Your task to perform on an android device: Open ESPN.com Image 0: 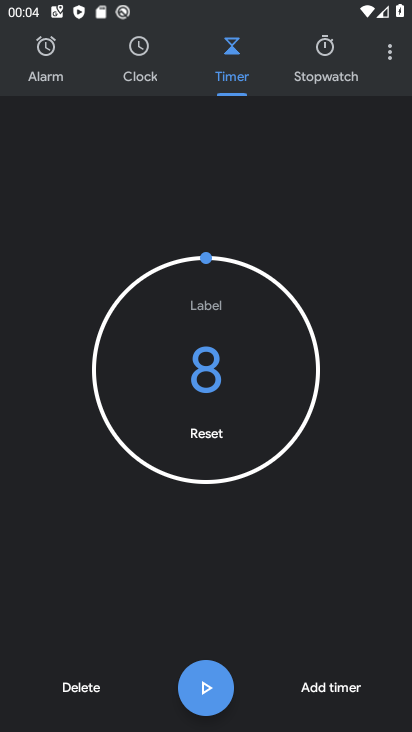
Step 0: press home button
Your task to perform on an android device: Open ESPN.com Image 1: 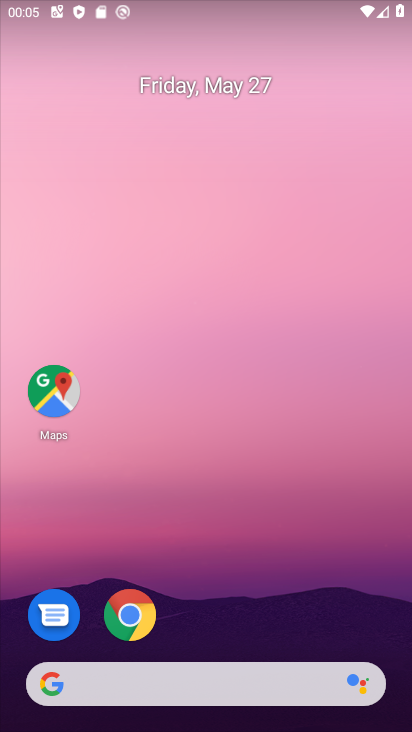
Step 1: click (149, 630)
Your task to perform on an android device: Open ESPN.com Image 2: 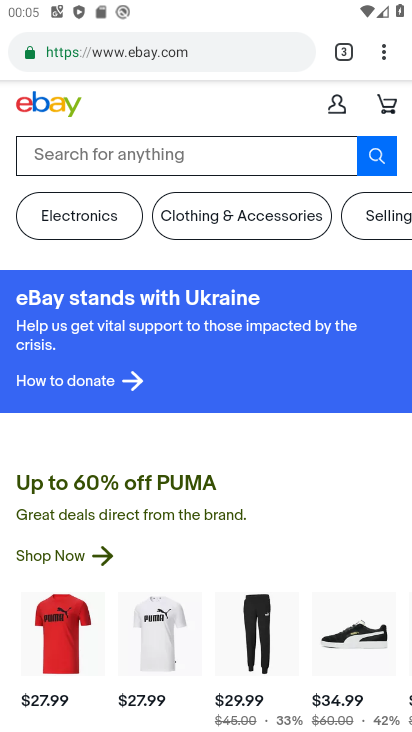
Step 2: click (148, 51)
Your task to perform on an android device: Open ESPN.com Image 3: 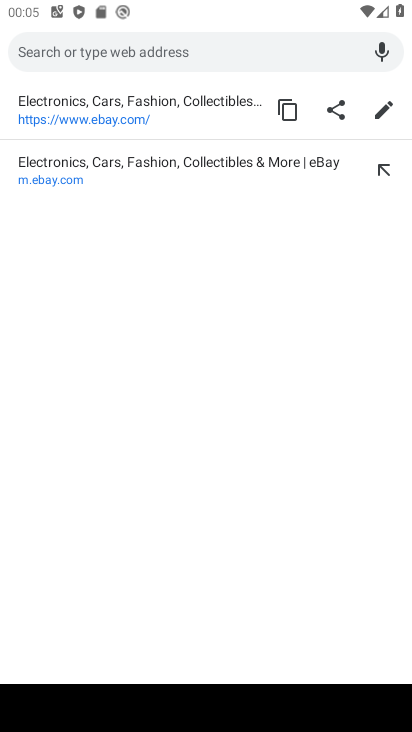
Step 3: type " ESPN.com"
Your task to perform on an android device: Open ESPN.com Image 4: 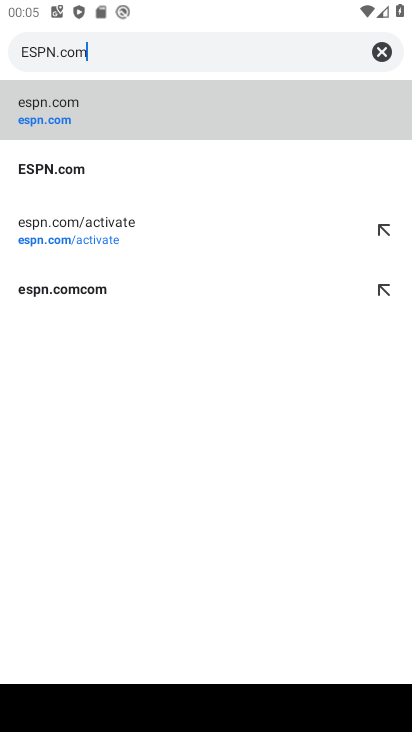
Step 4: click (107, 98)
Your task to perform on an android device: Open ESPN.com Image 5: 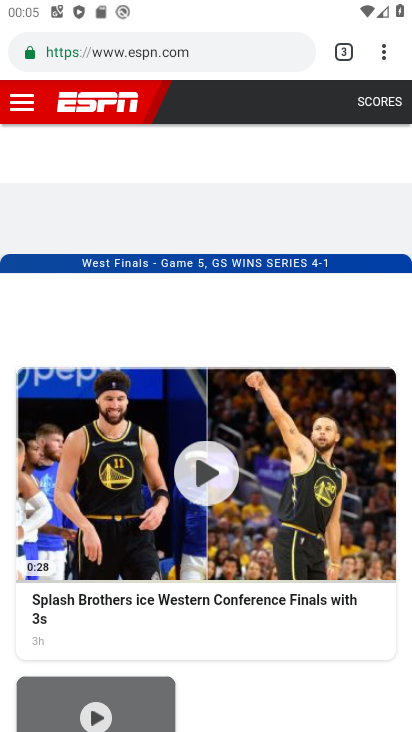
Step 5: task complete